Your task to perform on an android device: Clear the cart on target. Search for "bose soundlink mini" on target, select the first entry, and add it to the cart. Image 0: 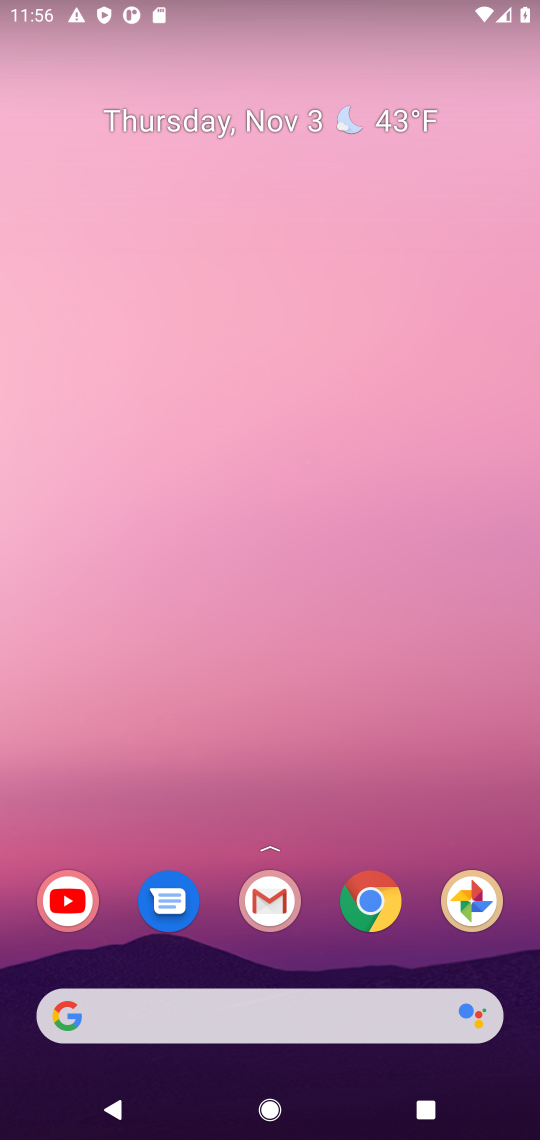
Step 0: click (377, 892)
Your task to perform on an android device: Clear the cart on target. Search for "bose soundlink mini" on target, select the first entry, and add it to the cart. Image 1: 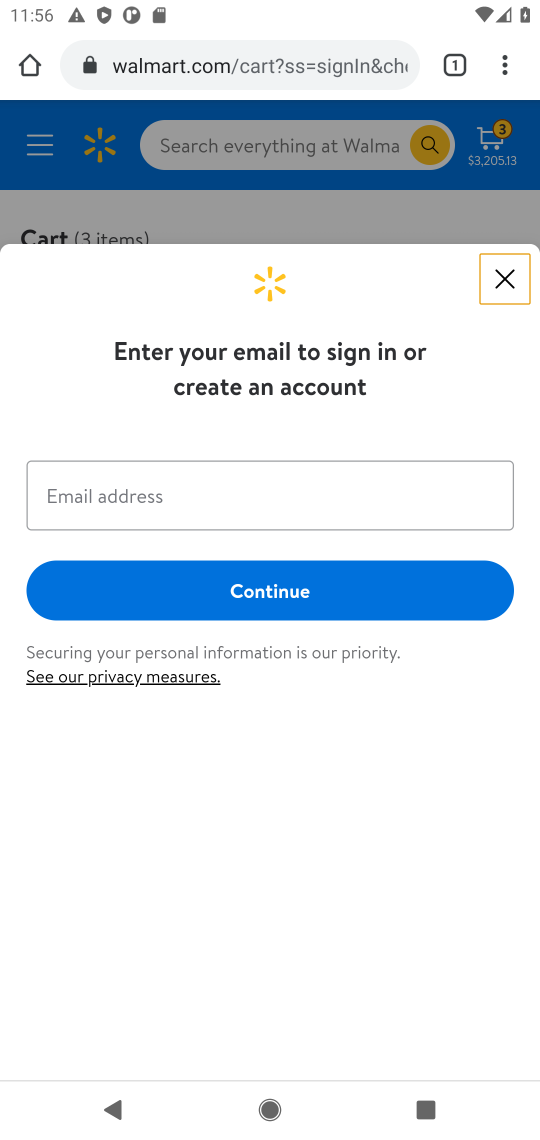
Step 1: click (311, 60)
Your task to perform on an android device: Clear the cart on target. Search for "bose soundlink mini" on target, select the first entry, and add it to the cart. Image 2: 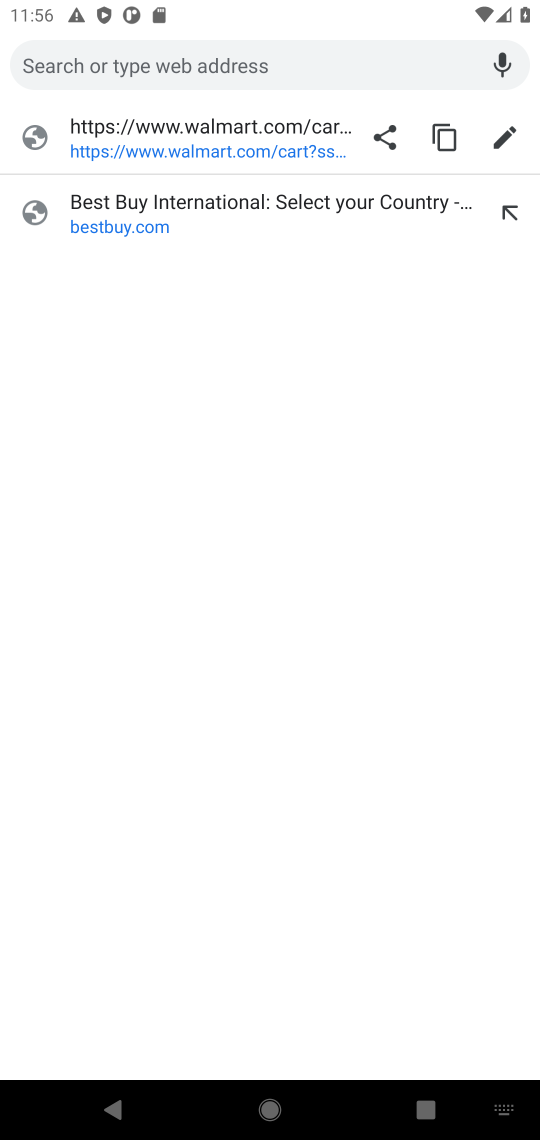
Step 2: type "target"
Your task to perform on an android device: Clear the cart on target. Search for "bose soundlink mini" on target, select the first entry, and add it to the cart. Image 3: 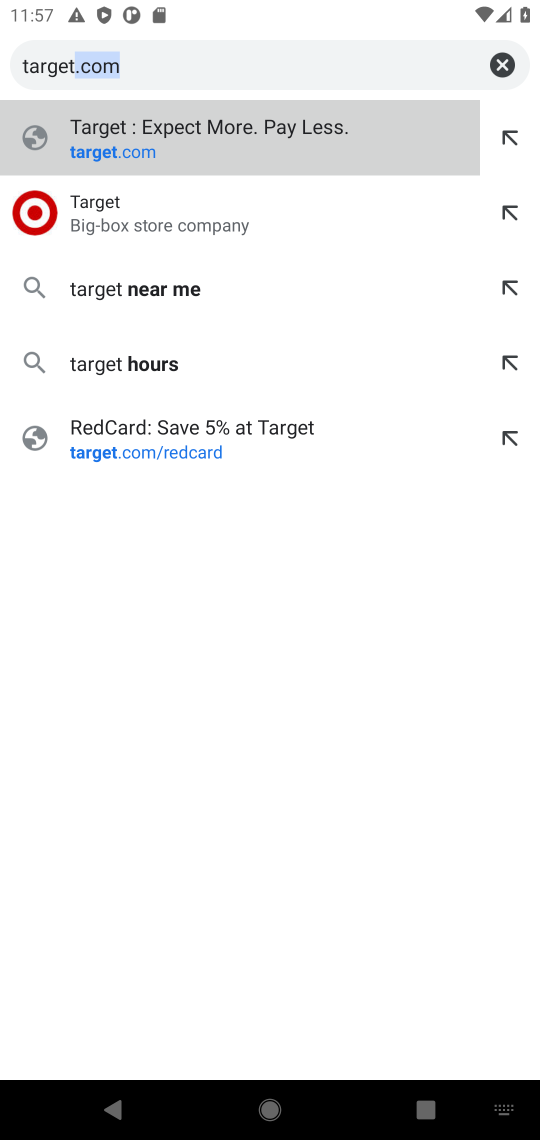
Step 3: click (132, 227)
Your task to perform on an android device: Clear the cart on target. Search for "bose soundlink mini" on target, select the first entry, and add it to the cart. Image 4: 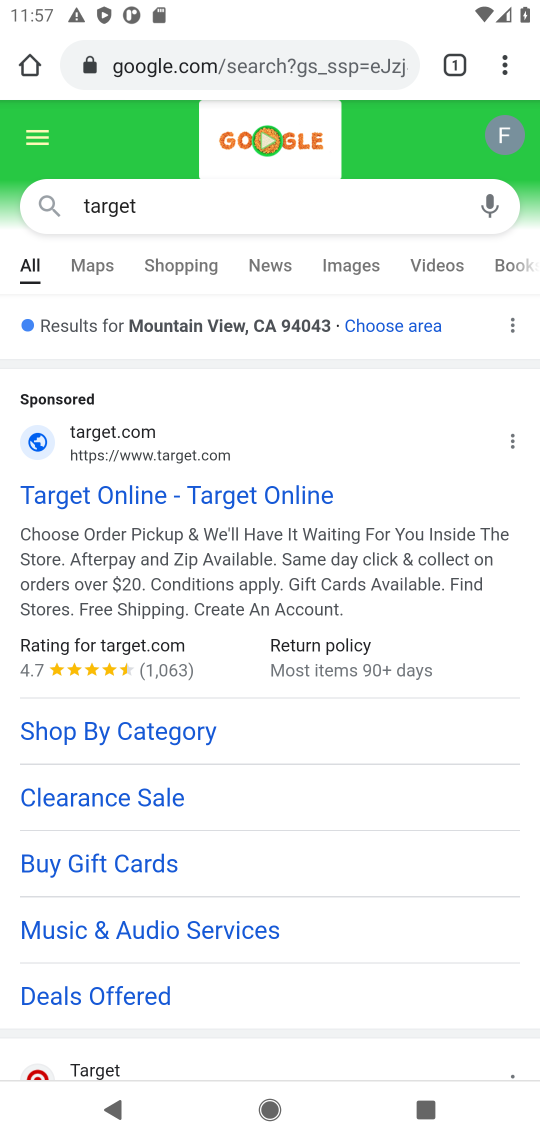
Step 4: click (169, 449)
Your task to perform on an android device: Clear the cart on target. Search for "bose soundlink mini" on target, select the first entry, and add it to the cart. Image 5: 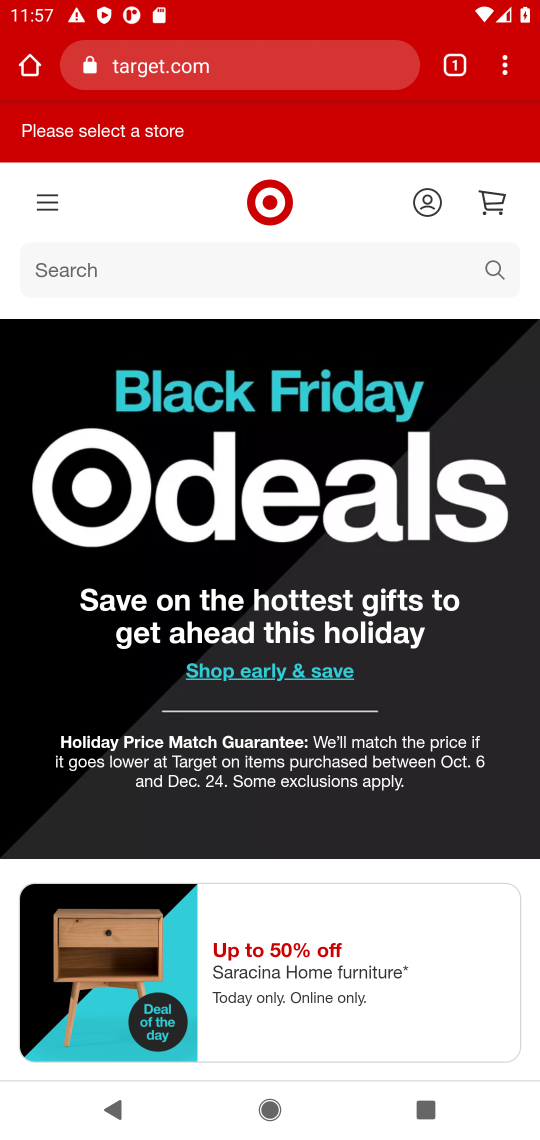
Step 5: click (497, 212)
Your task to perform on an android device: Clear the cart on target. Search for "bose soundlink mini" on target, select the first entry, and add it to the cart. Image 6: 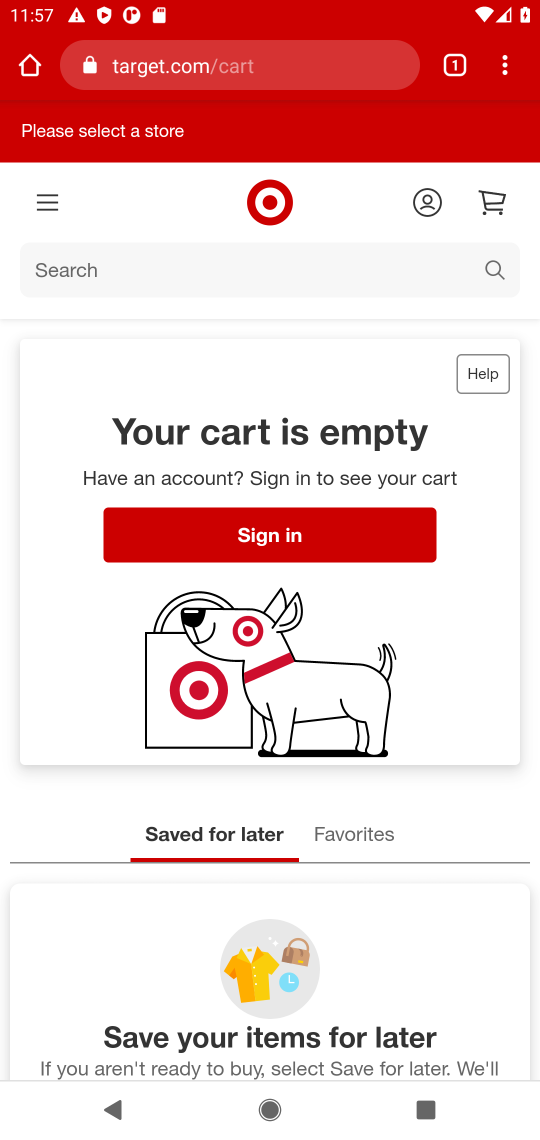
Step 6: click (487, 260)
Your task to perform on an android device: Clear the cart on target. Search for "bose soundlink mini" on target, select the first entry, and add it to the cart. Image 7: 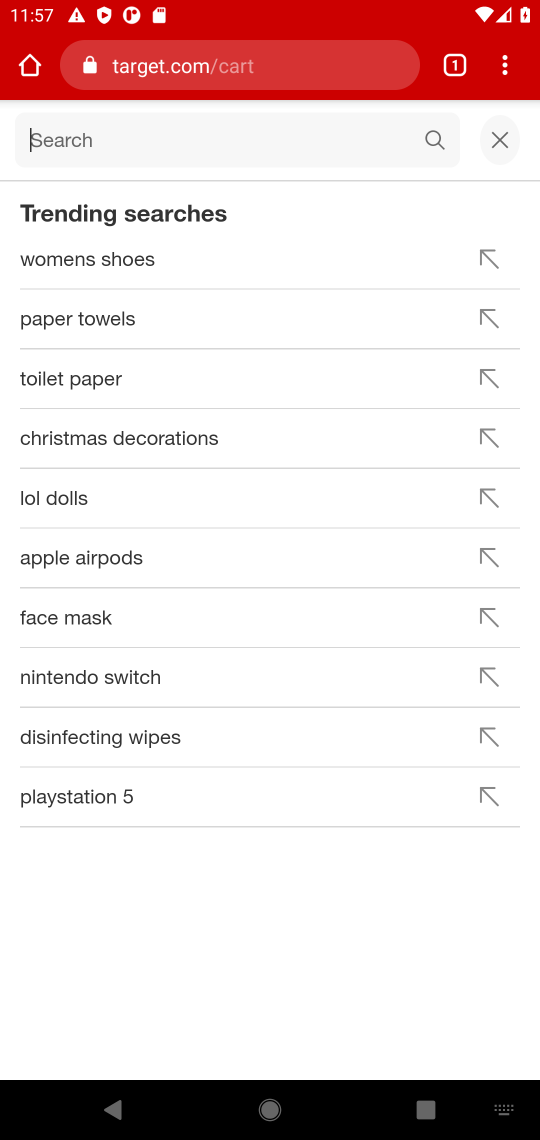
Step 7: press enter
Your task to perform on an android device: Clear the cart on target. Search for "bose soundlink mini" on target, select the first entry, and add it to the cart. Image 8: 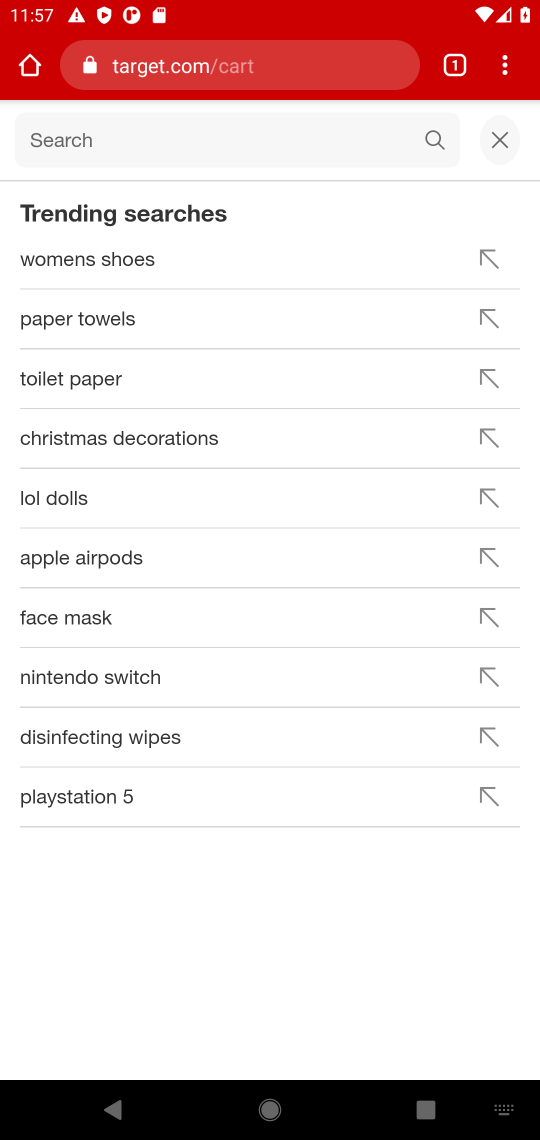
Step 8: type "bose soundlink mini"
Your task to perform on an android device: Clear the cart on target. Search for "bose soundlink mini" on target, select the first entry, and add it to the cart. Image 9: 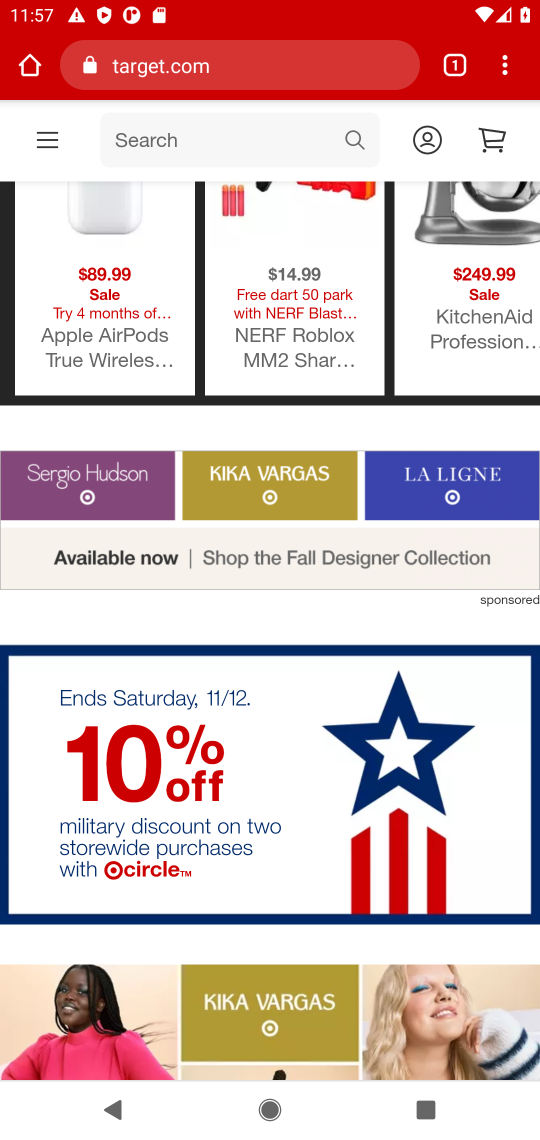
Step 9: drag from (375, 799) to (397, 326)
Your task to perform on an android device: Clear the cart on target. Search for "bose soundlink mini" on target, select the first entry, and add it to the cart. Image 10: 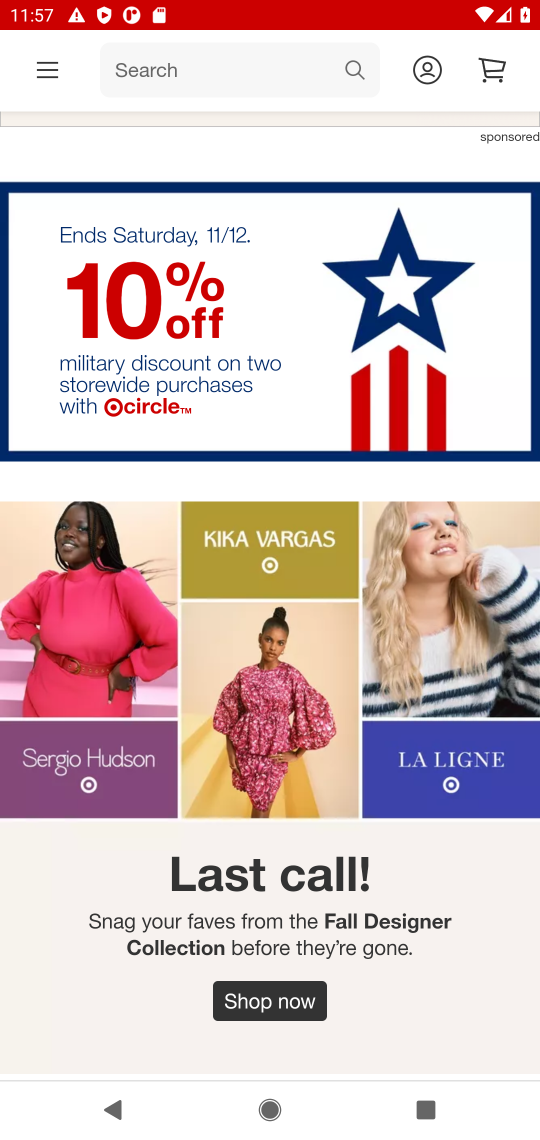
Step 10: drag from (345, 170) to (364, 956)
Your task to perform on an android device: Clear the cart on target. Search for "bose soundlink mini" on target, select the first entry, and add it to the cart. Image 11: 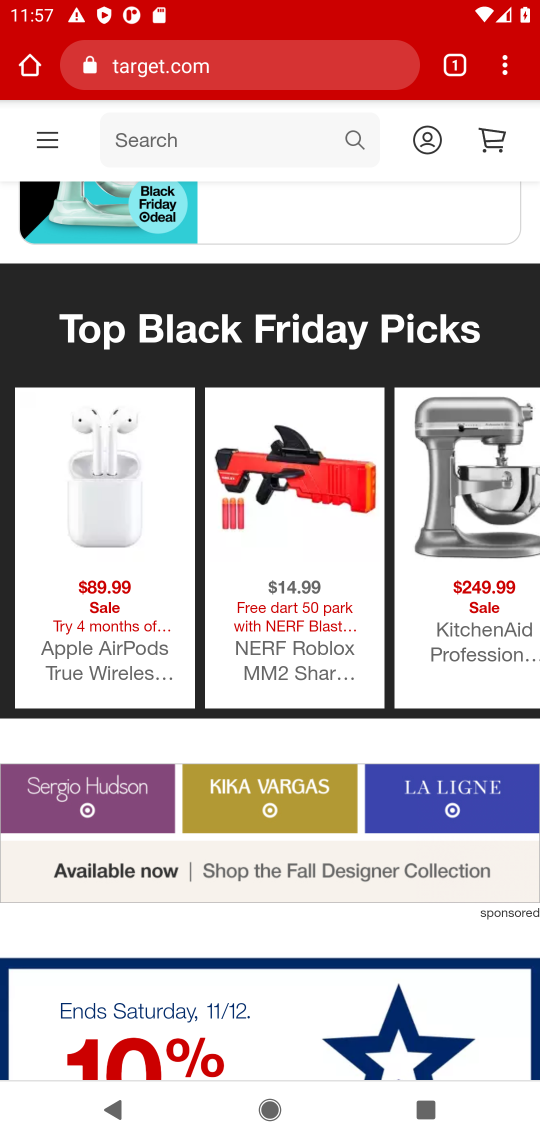
Step 11: click (344, 135)
Your task to perform on an android device: Clear the cart on target. Search for "bose soundlink mini" on target, select the first entry, and add it to the cart. Image 12: 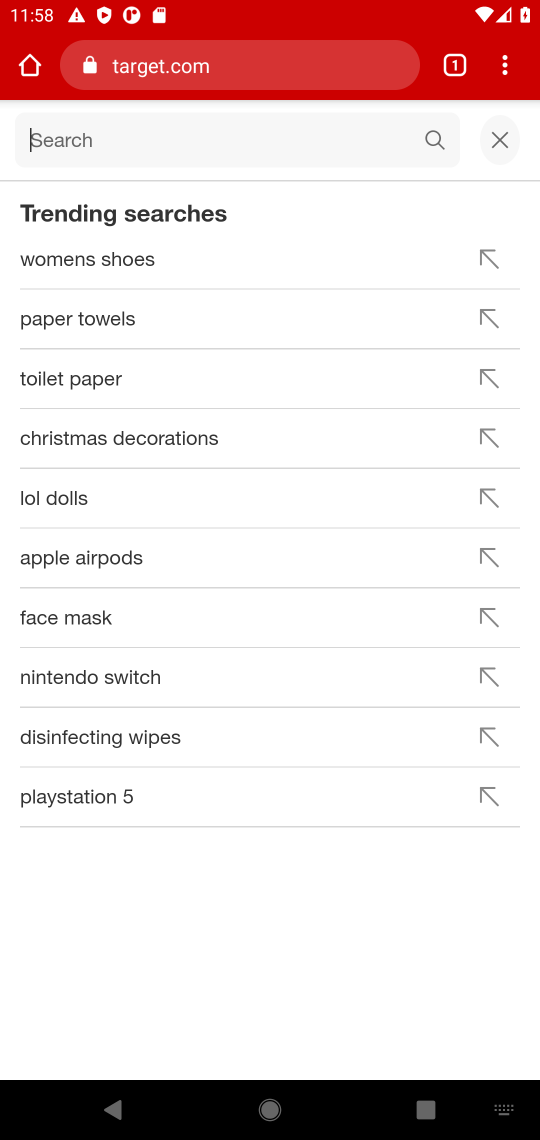
Step 12: type "bose soundlink mini"
Your task to perform on an android device: Clear the cart on target. Search for "bose soundlink mini" on target, select the first entry, and add it to the cart. Image 13: 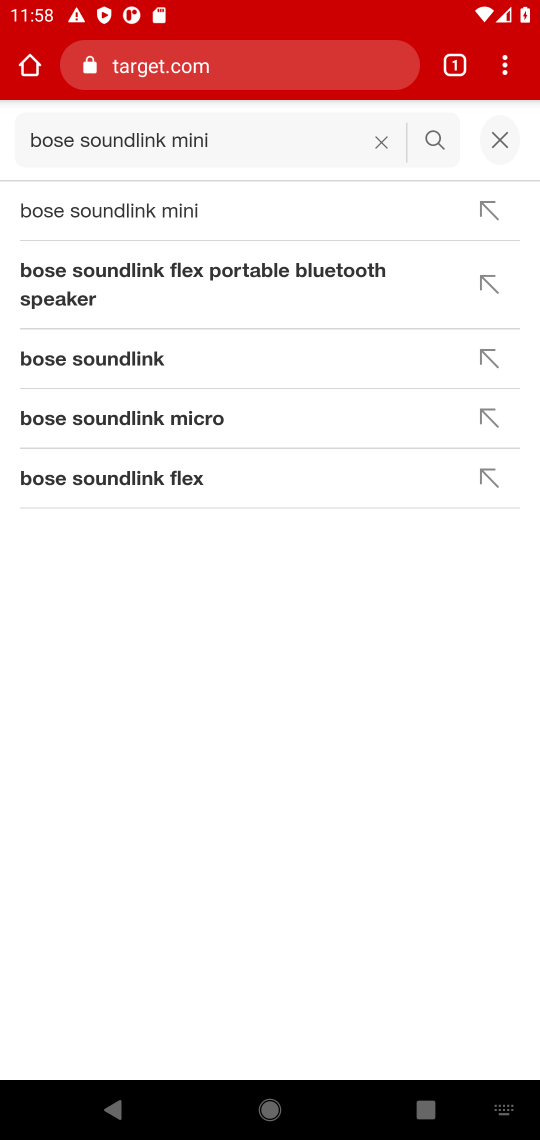
Step 13: click (147, 205)
Your task to perform on an android device: Clear the cart on target. Search for "bose soundlink mini" on target, select the first entry, and add it to the cart. Image 14: 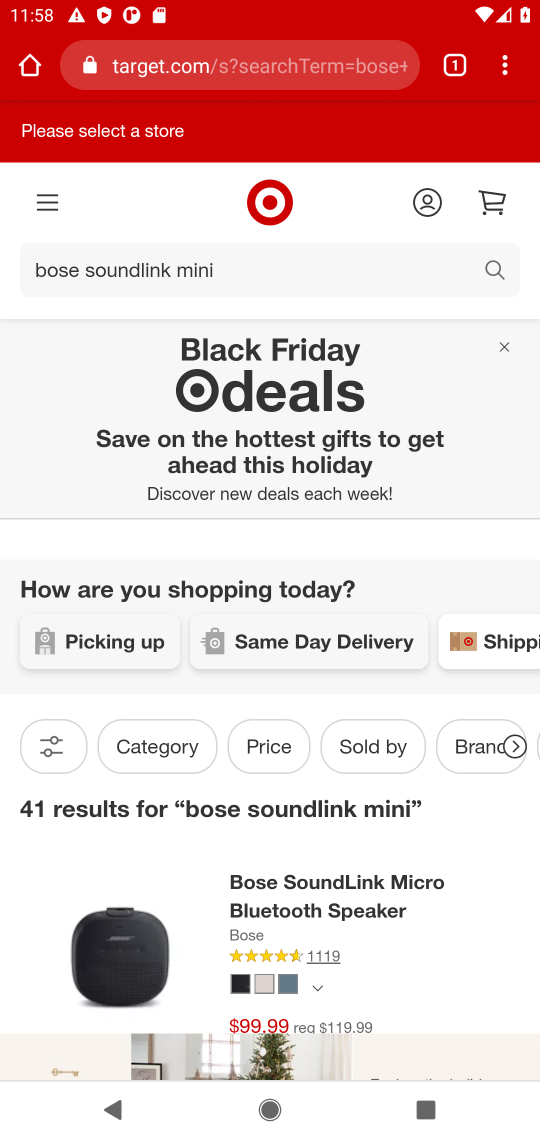
Step 14: drag from (385, 823) to (424, 478)
Your task to perform on an android device: Clear the cart on target. Search for "bose soundlink mini" on target, select the first entry, and add it to the cart. Image 15: 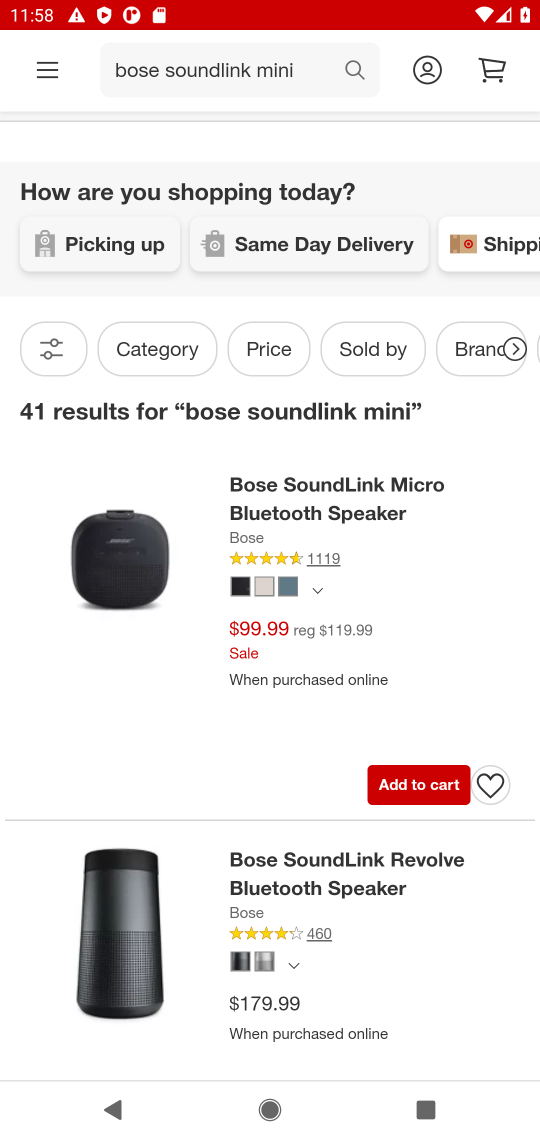
Step 15: drag from (413, 794) to (409, 483)
Your task to perform on an android device: Clear the cart on target. Search for "bose soundlink mini" on target, select the first entry, and add it to the cart. Image 16: 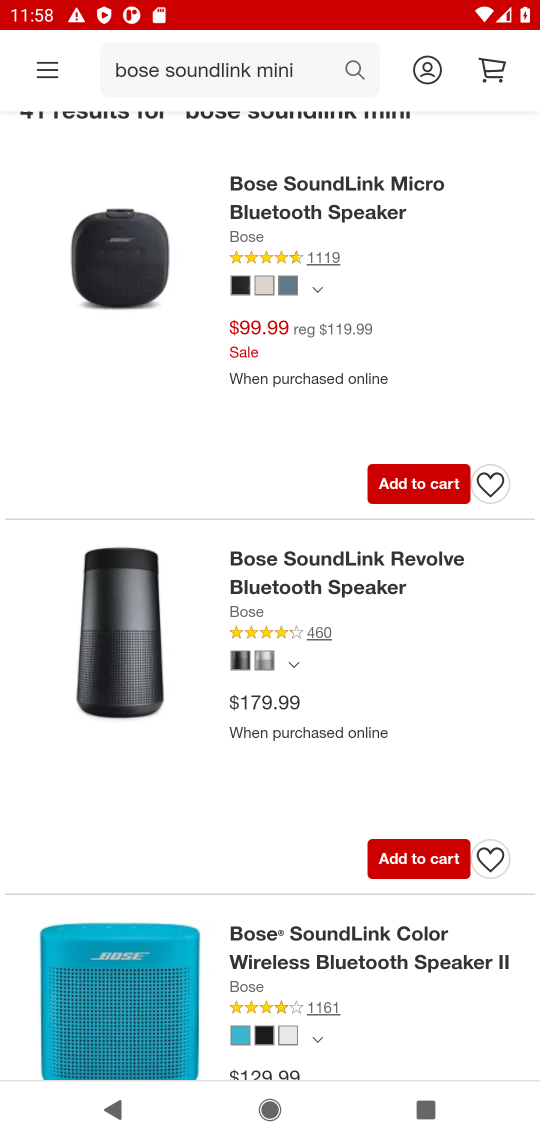
Step 16: drag from (438, 893) to (429, 422)
Your task to perform on an android device: Clear the cart on target. Search for "bose soundlink mini" on target, select the first entry, and add it to the cart. Image 17: 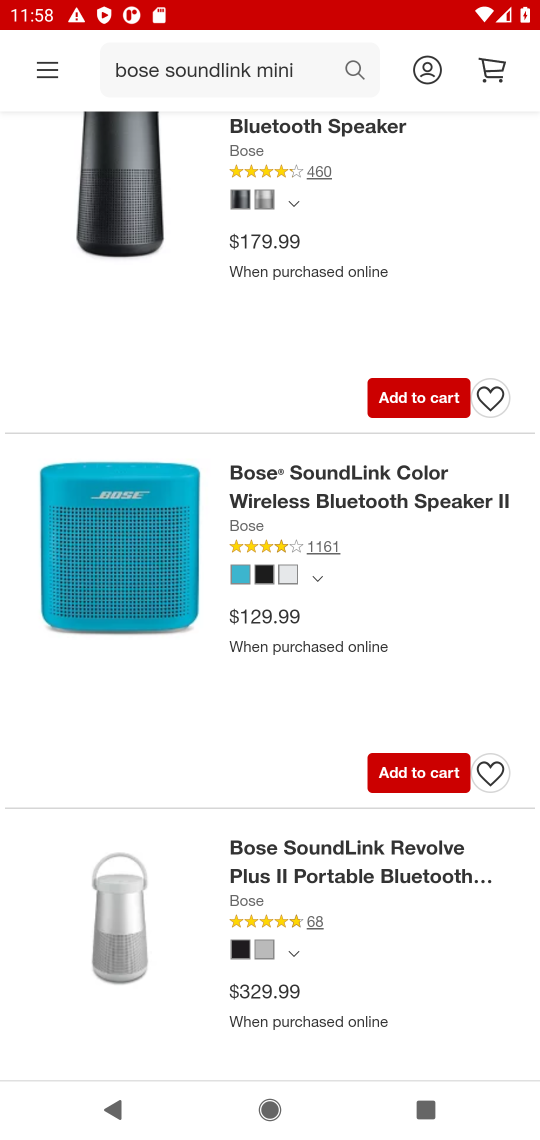
Step 17: drag from (437, 955) to (413, 468)
Your task to perform on an android device: Clear the cart on target. Search for "bose soundlink mini" on target, select the first entry, and add it to the cart. Image 18: 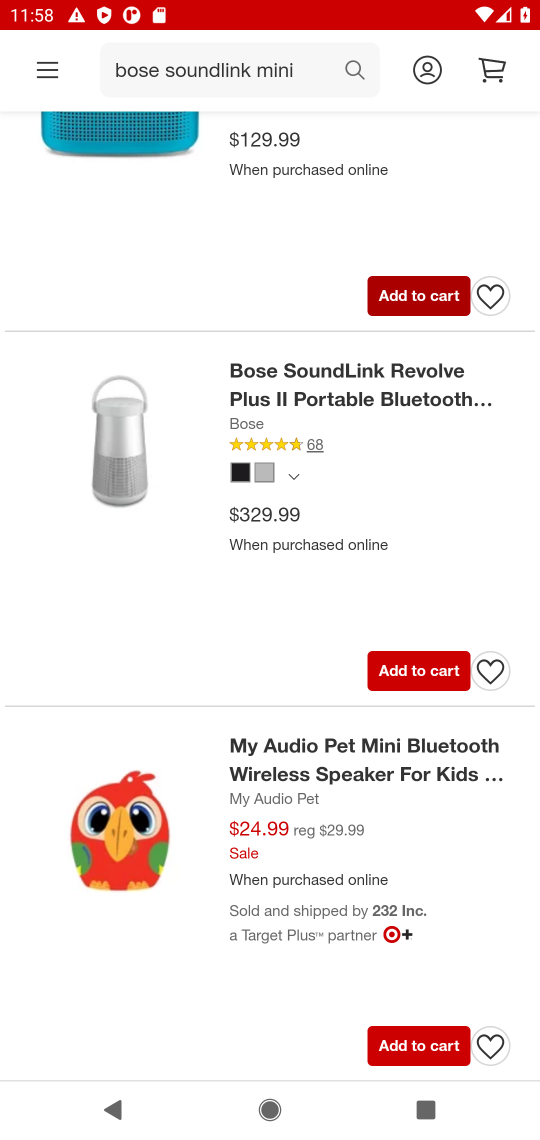
Step 18: drag from (413, 831) to (413, 426)
Your task to perform on an android device: Clear the cart on target. Search for "bose soundlink mini" on target, select the first entry, and add it to the cart. Image 19: 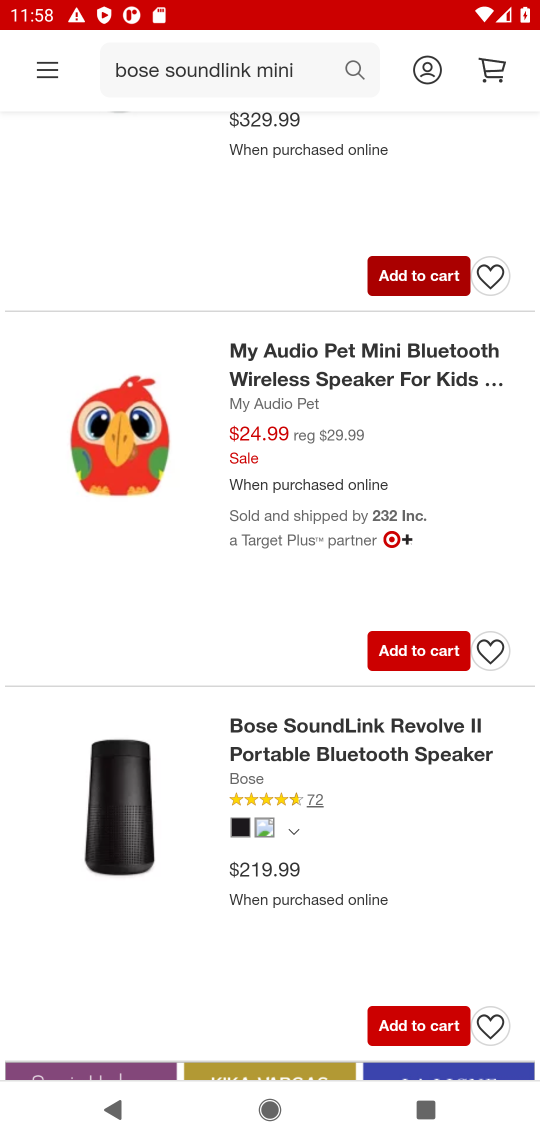
Step 19: drag from (462, 859) to (402, 487)
Your task to perform on an android device: Clear the cart on target. Search for "bose soundlink mini" on target, select the first entry, and add it to the cart. Image 20: 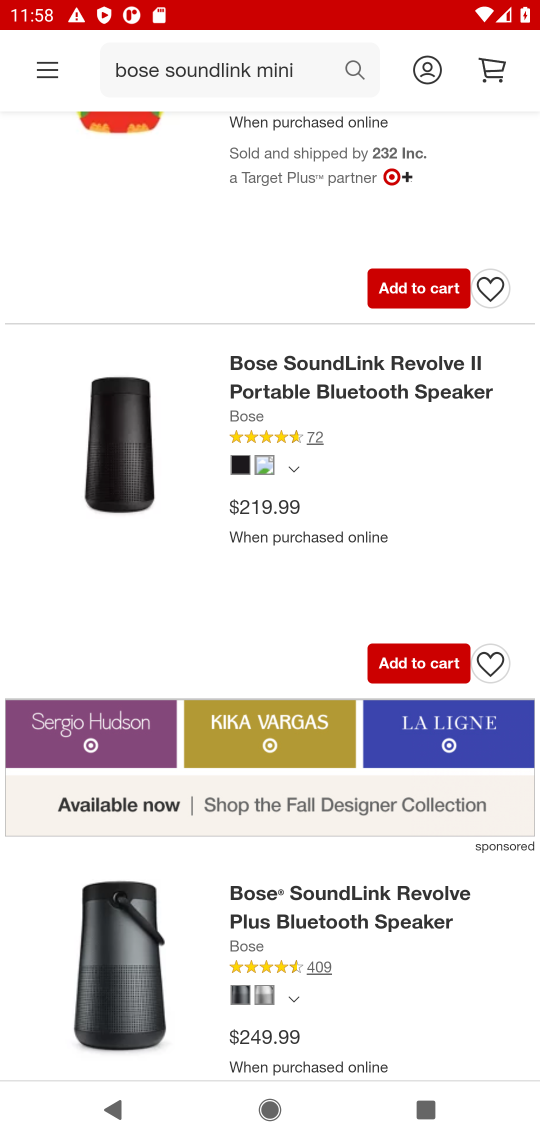
Step 20: drag from (472, 969) to (410, 589)
Your task to perform on an android device: Clear the cart on target. Search for "bose soundlink mini" on target, select the first entry, and add it to the cart. Image 21: 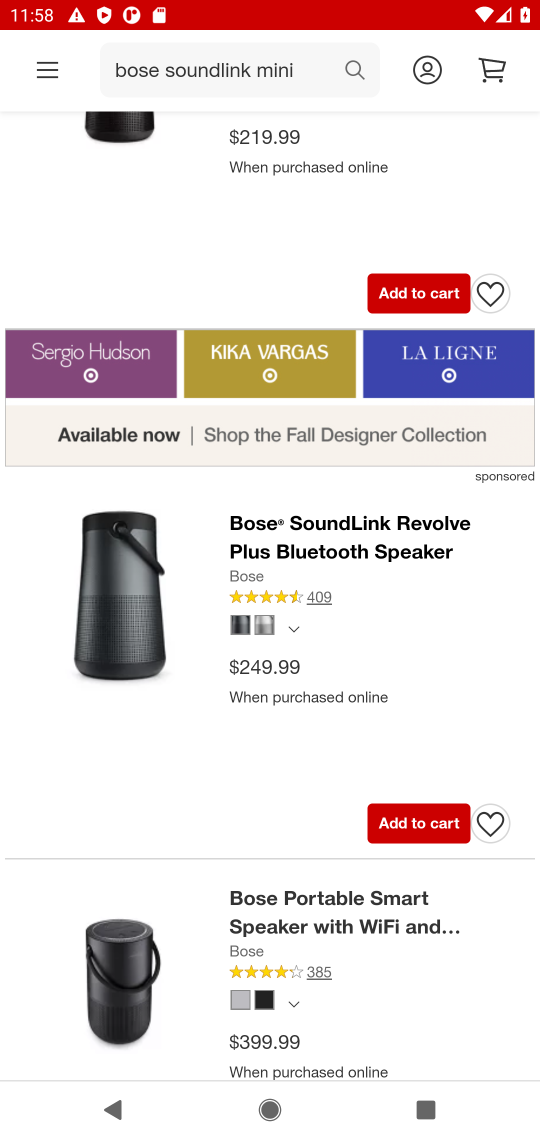
Step 21: drag from (385, 536) to (429, 999)
Your task to perform on an android device: Clear the cart on target. Search for "bose soundlink mini" on target, select the first entry, and add it to the cart. Image 22: 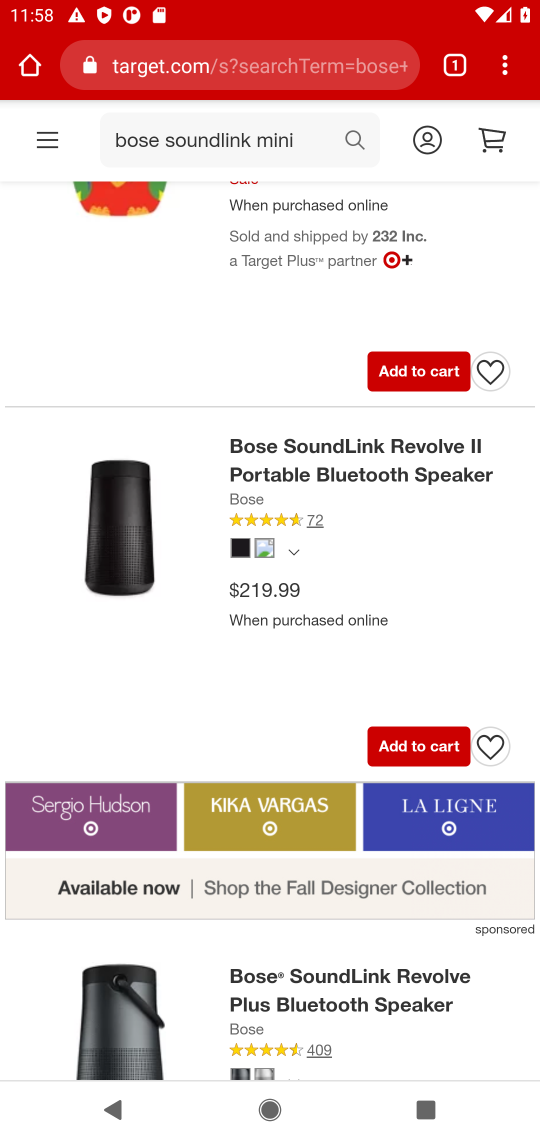
Step 22: drag from (328, 356) to (374, 929)
Your task to perform on an android device: Clear the cart on target. Search for "bose soundlink mini" on target, select the first entry, and add it to the cart. Image 23: 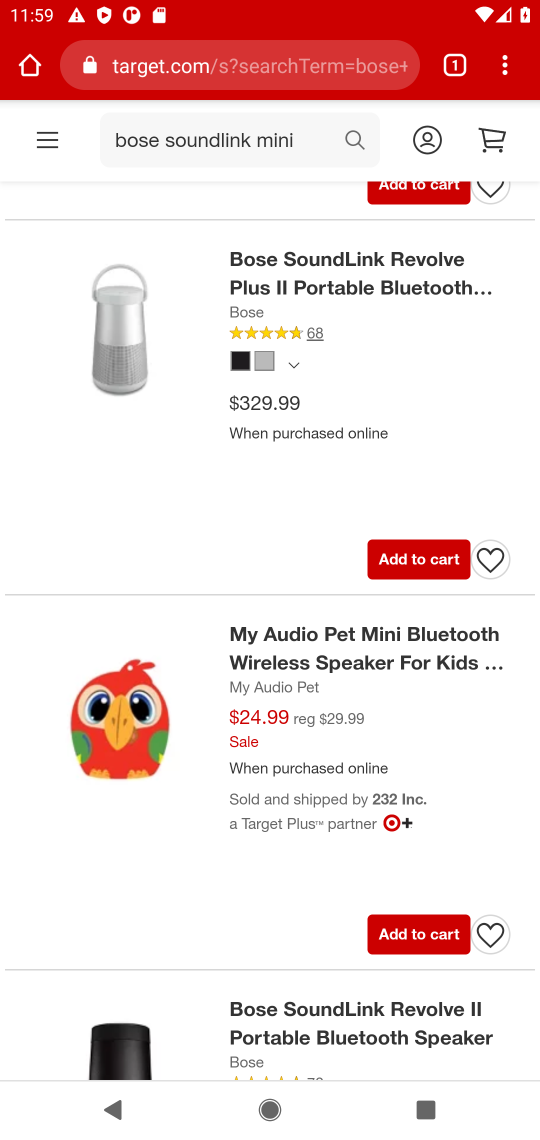
Step 23: drag from (150, 263) to (169, 964)
Your task to perform on an android device: Clear the cart on target. Search for "bose soundlink mini" on target, select the first entry, and add it to the cart. Image 24: 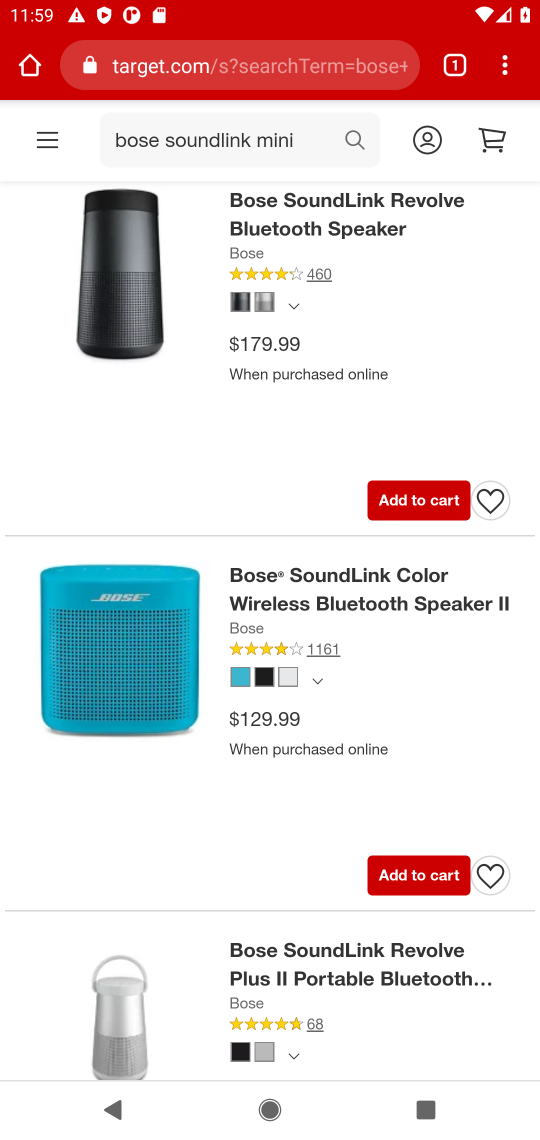
Step 24: drag from (356, 251) to (371, 851)
Your task to perform on an android device: Clear the cart on target. Search for "bose soundlink mini" on target, select the first entry, and add it to the cart. Image 25: 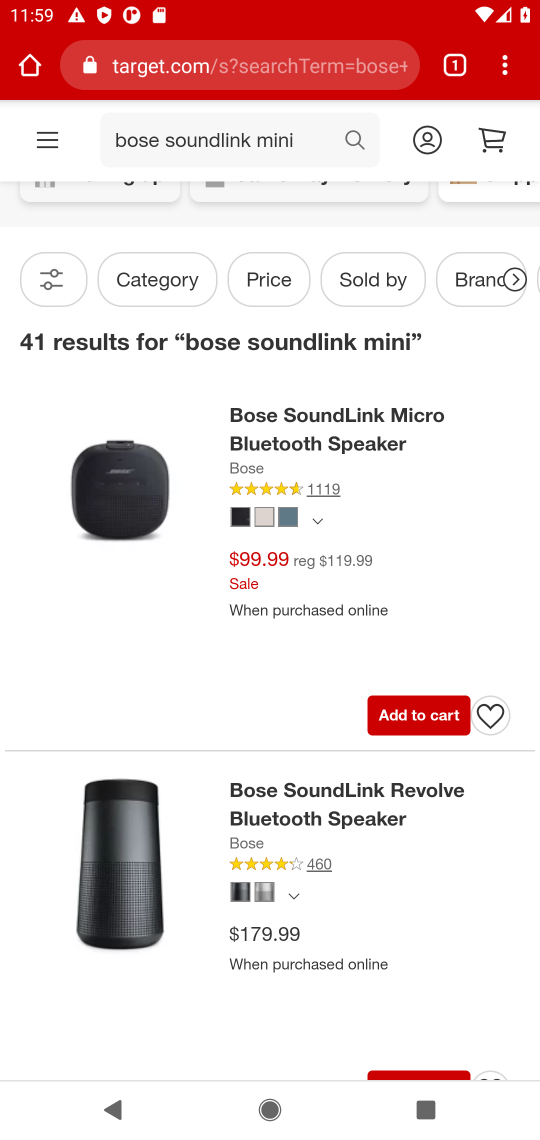
Step 25: drag from (326, 426) to (389, 974)
Your task to perform on an android device: Clear the cart on target. Search for "bose soundlink mini" on target, select the first entry, and add it to the cart. Image 26: 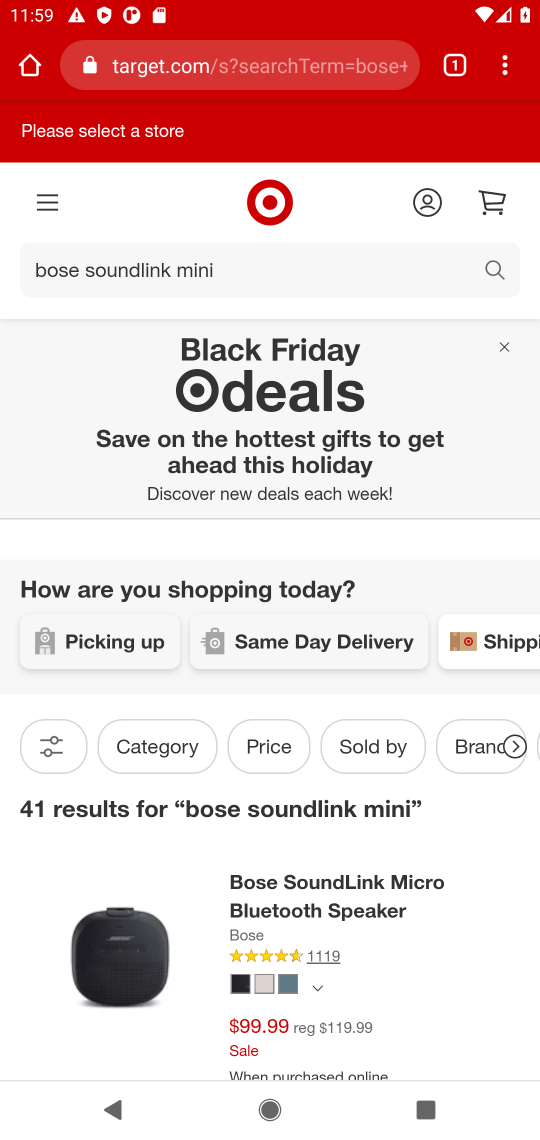
Step 26: click (105, 923)
Your task to perform on an android device: Clear the cart on target. Search for "bose soundlink mini" on target, select the first entry, and add it to the cart. Image 27: 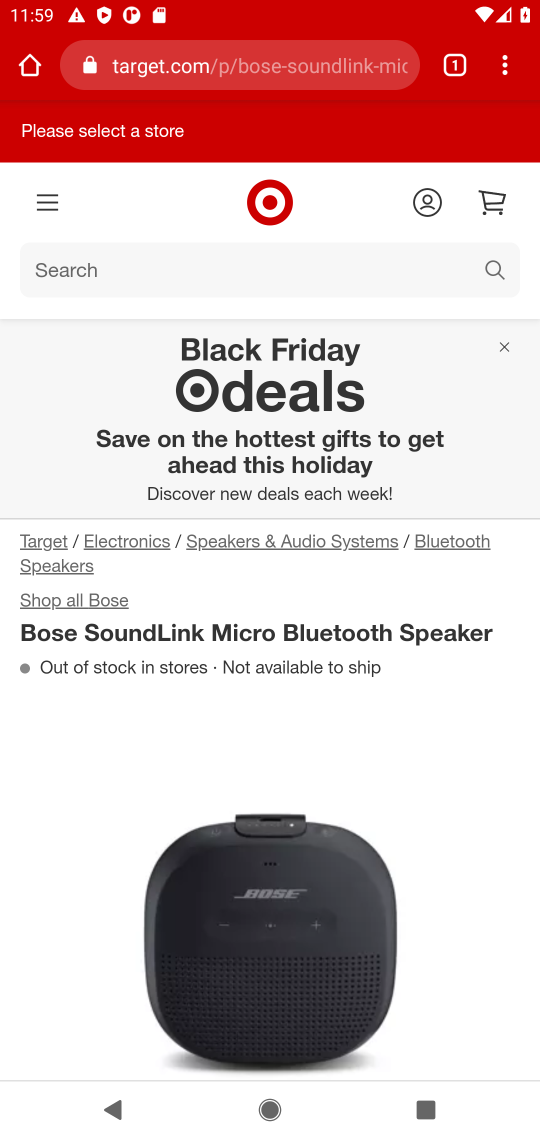
Step 27: drag from (399, 786) to (422, 433)
Your task to perform on an android device: Clear the cart on target. Search for "bose soundlink mini" on target, select the first entry, and add it to the cart. Image 28: 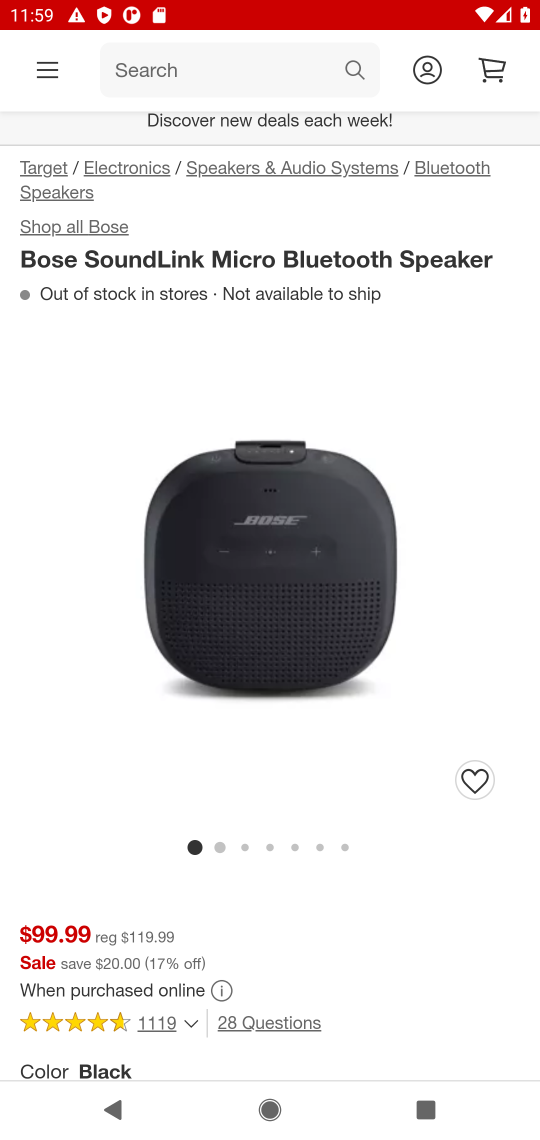
Step 28: drag from (415, 903) to (377, 425)
Your task to perform on an android device: Clear the cart on target. Search for "bose soundlink mini" on target, select the first entry, and add it to the cart. Image 29: 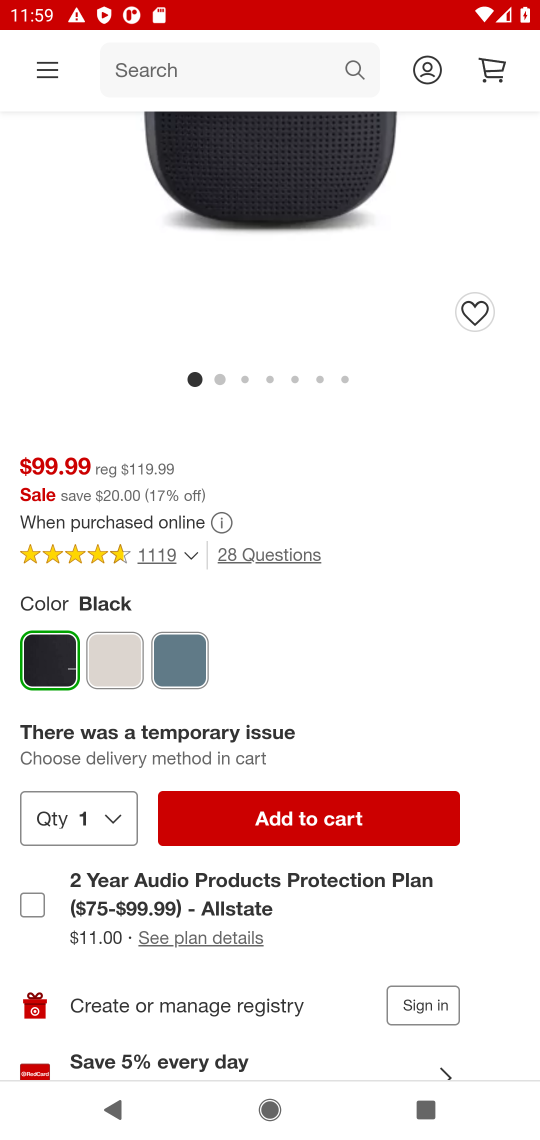
Step 29: click (383, 818)
Your task to perform on an android device: Clear the cart on target. Search for "bose soundlink mini" on target, select the first entry, and add it to the cart. Image 30: 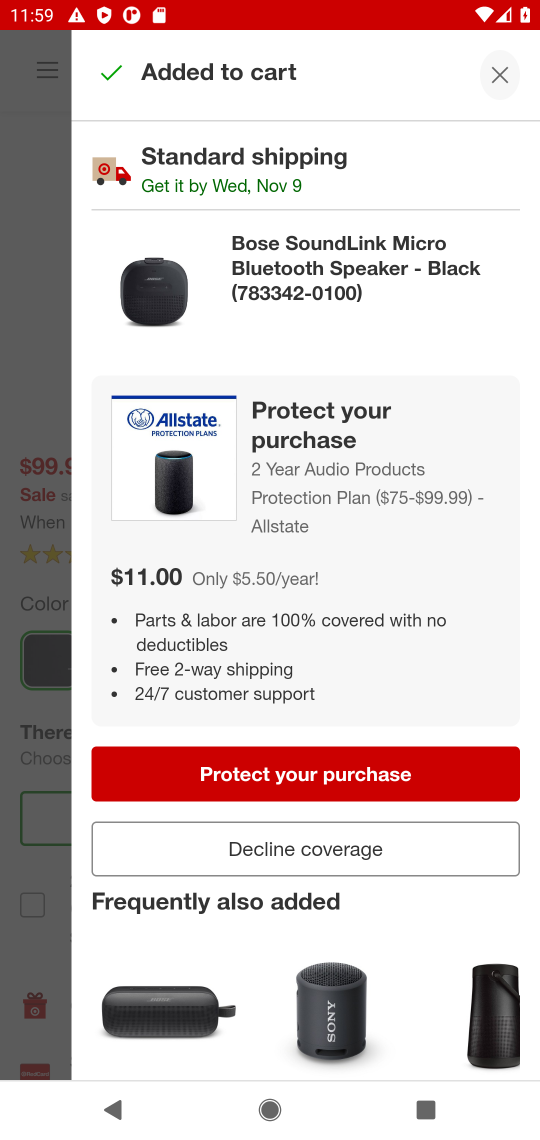
Step 30: click (506, 77)
Your task to perform on an android device: Clear the cart on target. Search for "bose soundlink mini" on target, select the first entry, and add it to the cart. Image 31: 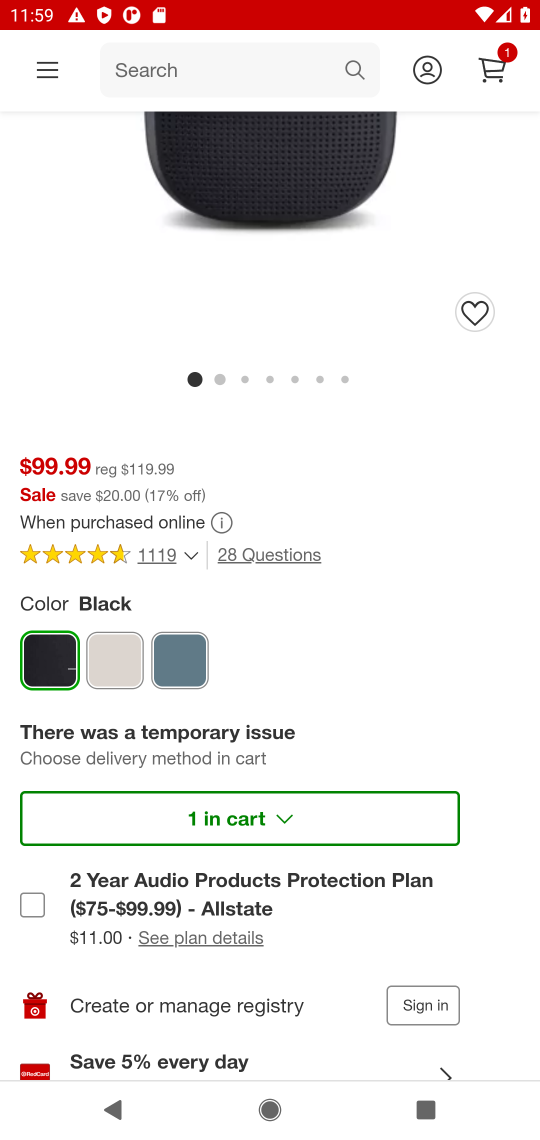
Step 31: task complete